Your task to perform on an android device: open app "Skype" Image 0: 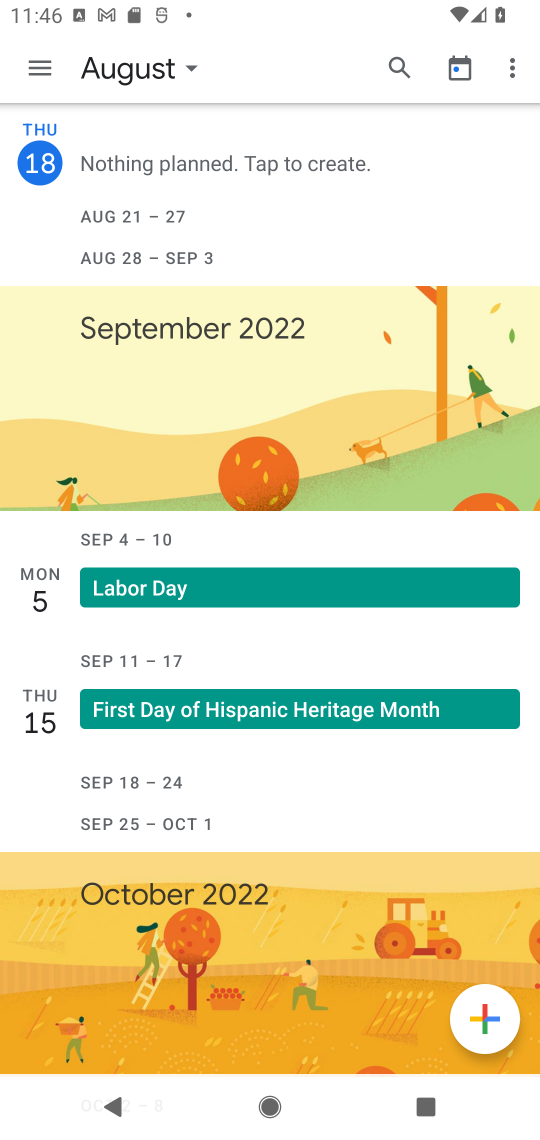
Step 0: press home button
Your task to perform on an android device: open app "Skype" Image 1: 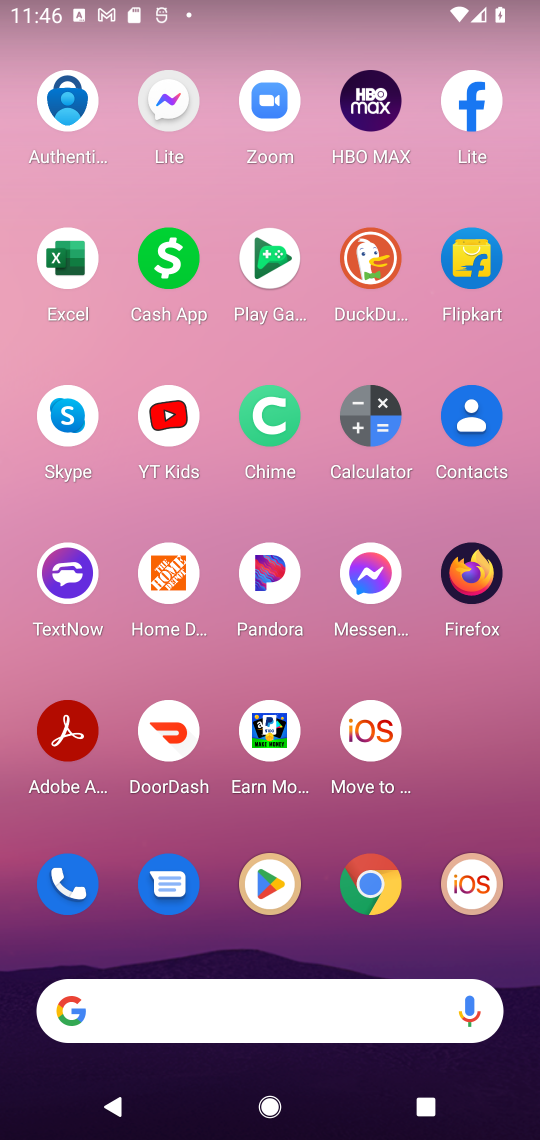
Step 1: drag from (225, 1001) to (534, 224)
Your task to perform on an android device: open app "Skype" Image 2: 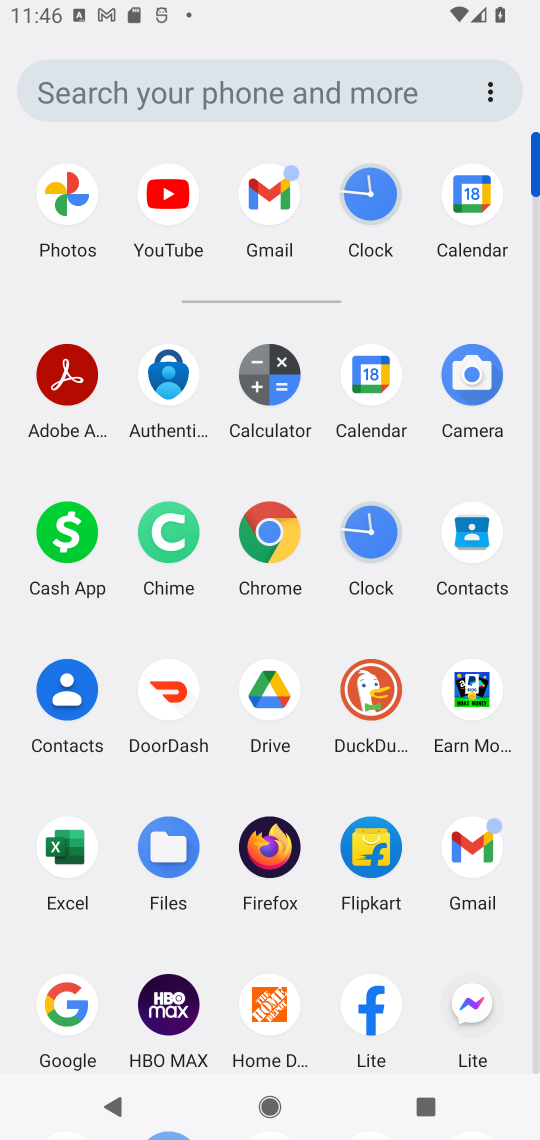
Step 2: drag from (277, 942) to (446, 480)
Your task to perform on an android device: open app "Skype" Image 3: 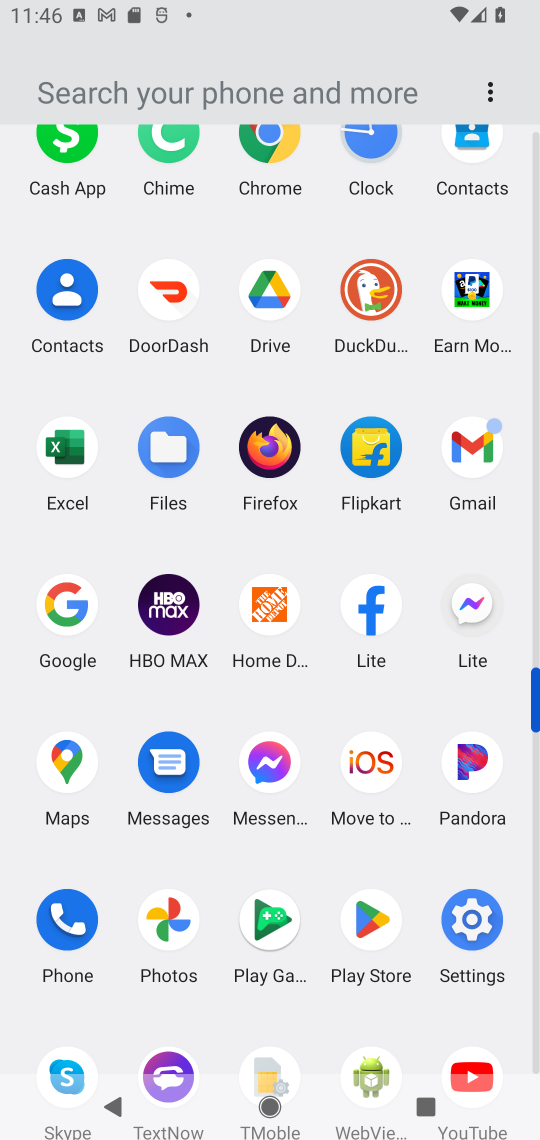
Step 3: drag from (337, 892) to (389, 669)
Your task to perform on an android device: open app "Skype" Image 4: 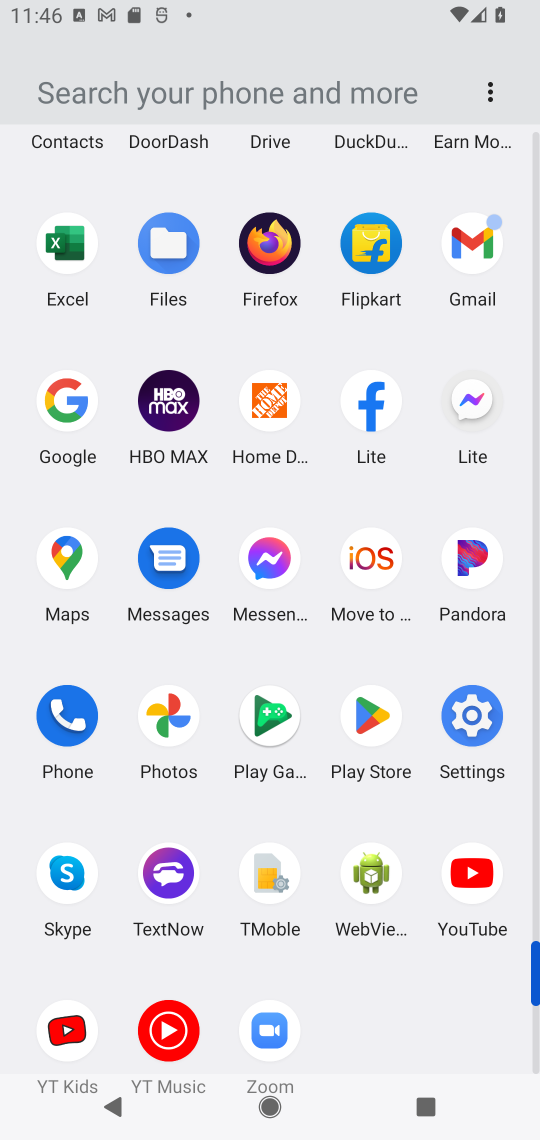
Step 4: click (68, 875)
Your task to perform on an android device: open app "Skype" Image 5: 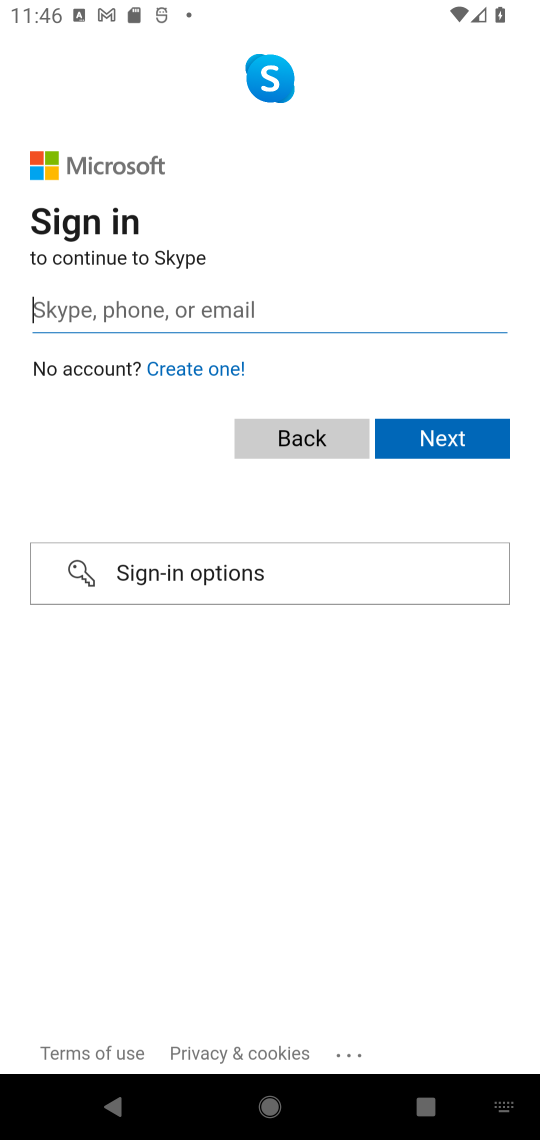
Step 5: task complete